Your task to perform on an android device: Search for seafood restaurants on Google Maps Image 0: 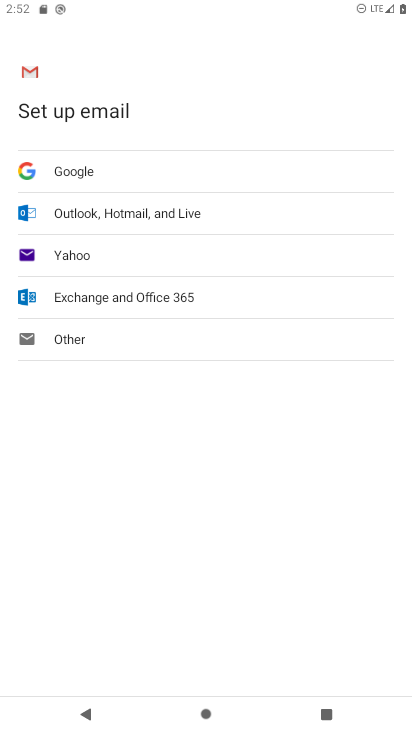
Step 0: press home button
Your task to perform on an android device: Search for seafood restaurants on Google Maps Image 1: 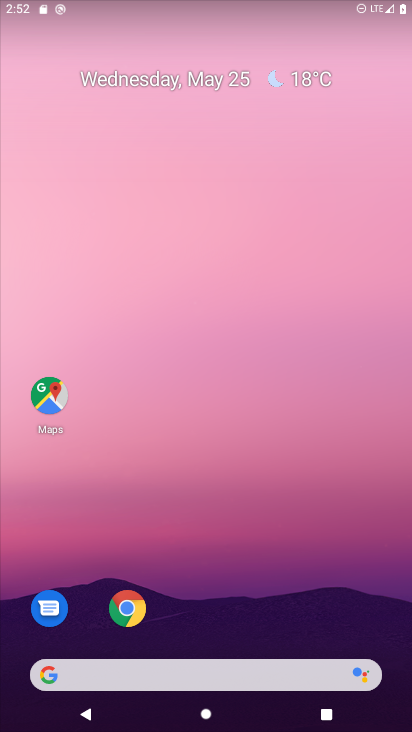
Step 1: click (47, 395)
Your task to perform on an android device: Search for seafood restaurants on Google Maps Image 2: 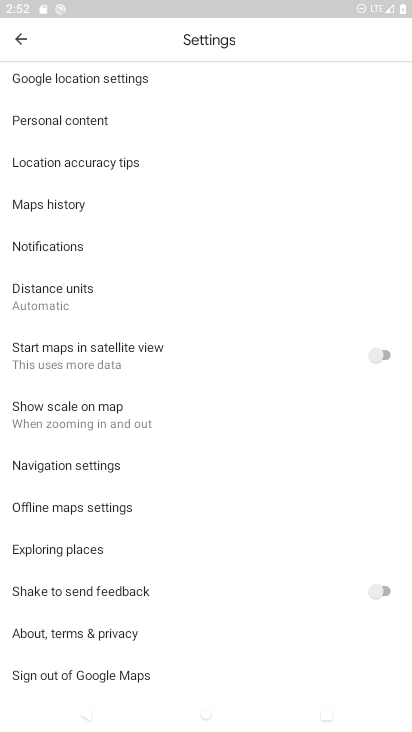
Step 2: press back button
Your task to perform on an android device: Search for seafood restaurants on Google Maps Image 3: 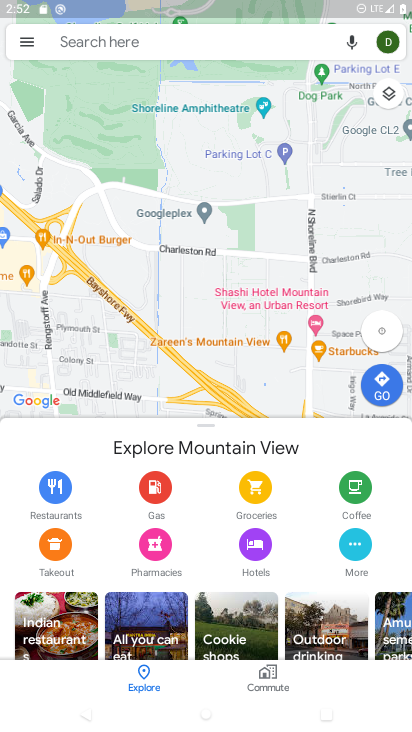
Step 3: click (101, 38)
Your task to perform on an android device: Search for seafood restaurants on Google Maps Image 4: 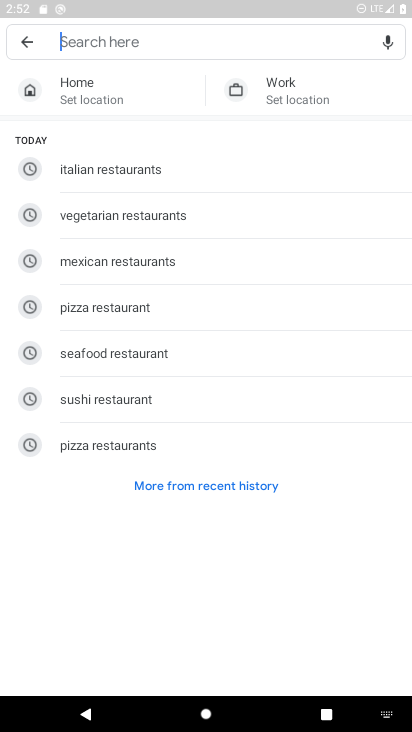
Step 4: type "seafood restaurants"
Your task to perform on an android device: Search for seafood restaurants on Google Maps Image 5: 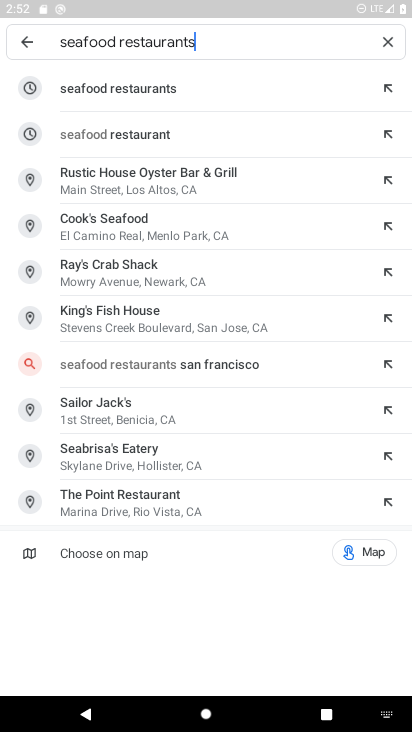
Step 5: click (128, 84)
Your task to perform on an android device: Search for seafood restaurants on Google Maps Image 6: 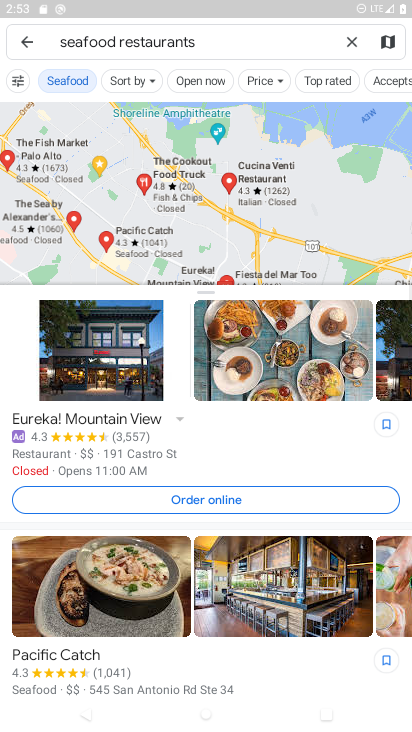
Step 6: task complete